Your task to perform on an android device: turn off priority inbox in the gmail app Image 0: 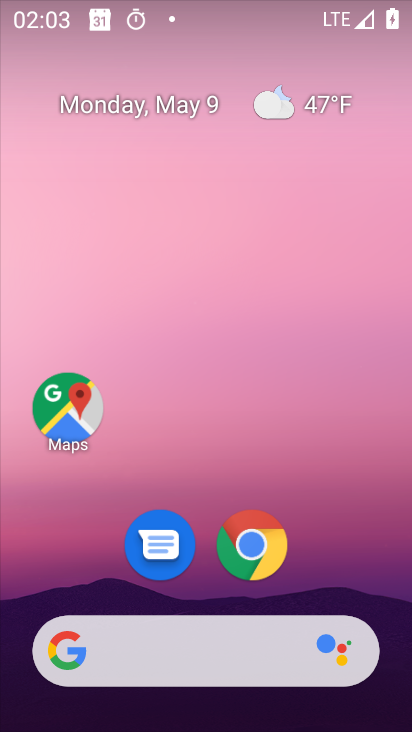
Step 0: drag from (335, 601) to (356, 5)
Your task to perform on an android device: turn off priority inbox in the gmail app Image 1: 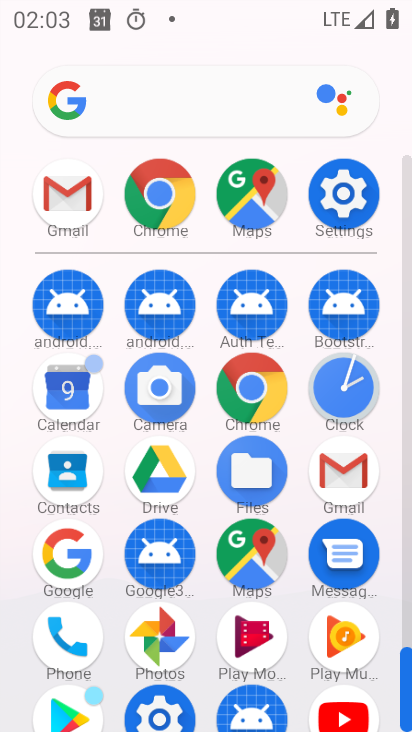
Step 1: click (344, 472)
Your task to perform on an android device: turn off priority inbox in the gmail app Image 2: 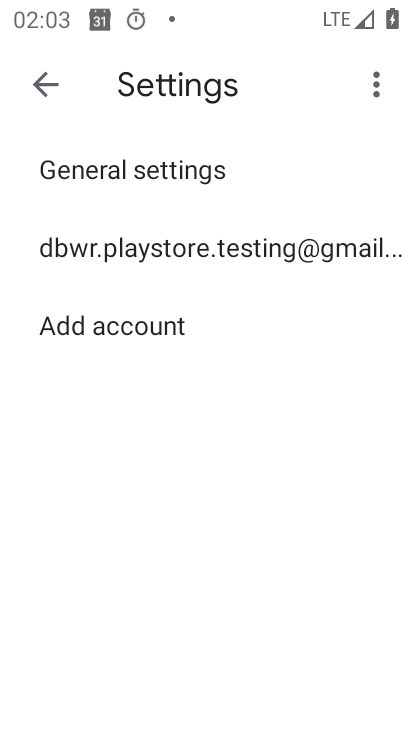
Step 2: press back button
Your task to perform on an android device: turn off priority inbox in the gmail app Image 3: 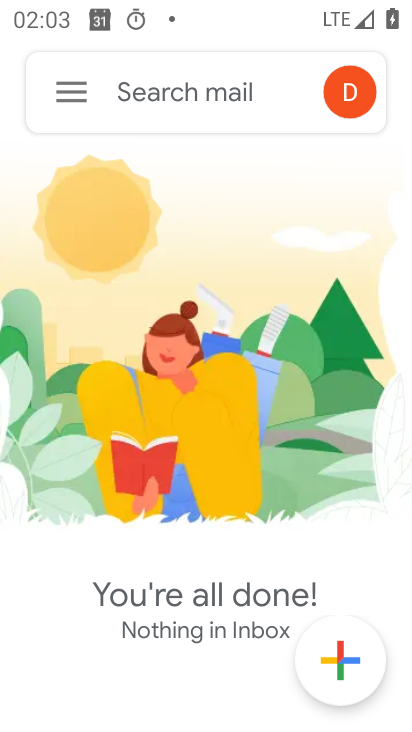
Step 3: click (64, 77)
Your task to perform on an android device: turn off priority inbox in the gmail app Image 4: 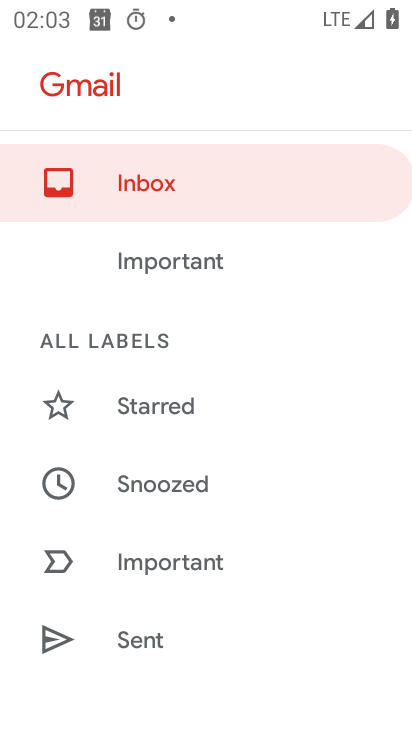
Step 4: drag from (167, 653) to (270, 0)
Your task to perform on an android device: turn off priority inbox in the gmail app Image 5: 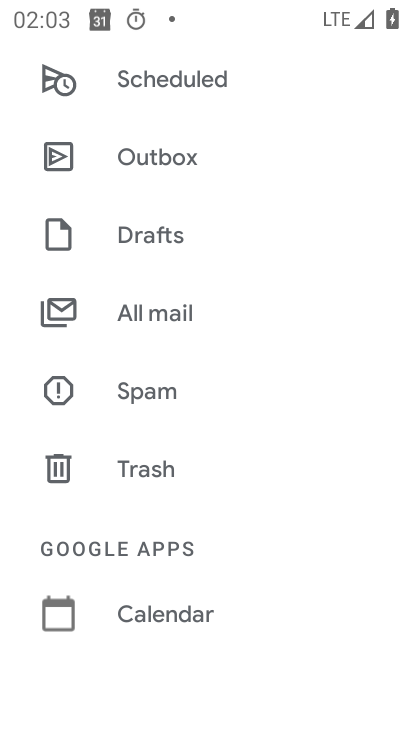
Step 5: drag from (178, 643) to (236, 166)
Your task to perform on an android device: turn off priority inbox in the gmail app Image 6: 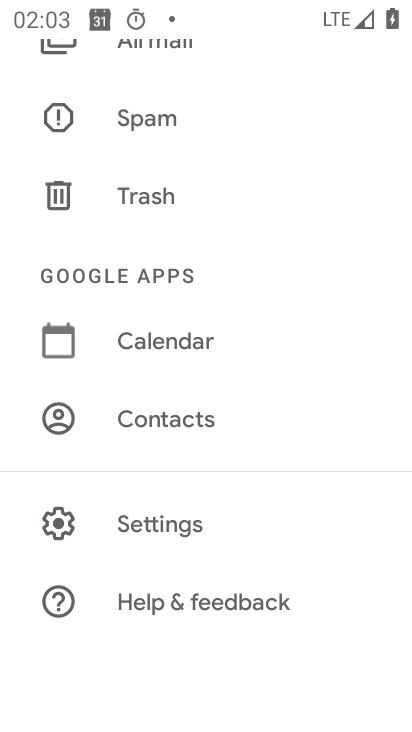
Step 6: click (197, 538)
Your task to perform on an android device: turn off priority inbox in the gmail app Image 7: 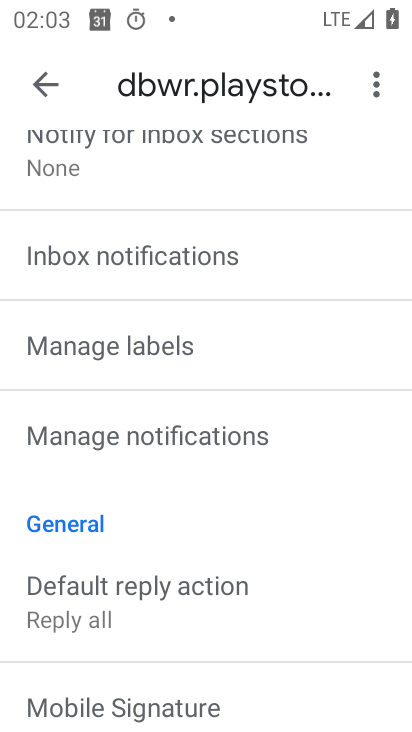
Step 7: drag from (247, 199) to (244, 666)
Your task to perform on an android device: turn off priority inbox in the gmail app Image 8: 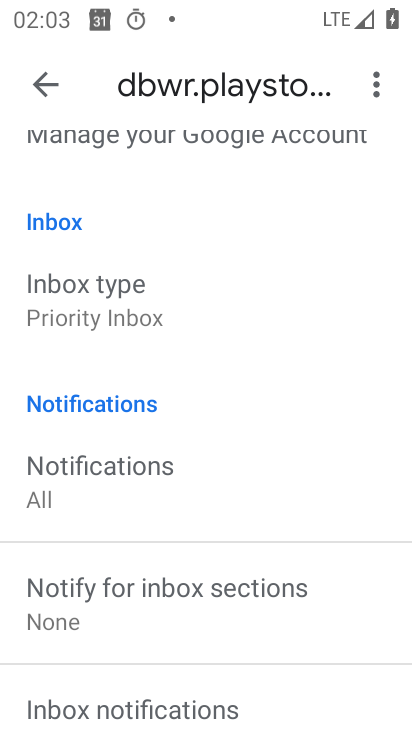
Step 8: drag from (211, 322) to (223, 516)
Your task to perform on an android device: turn off priority inbox in the gmail app Image 9: 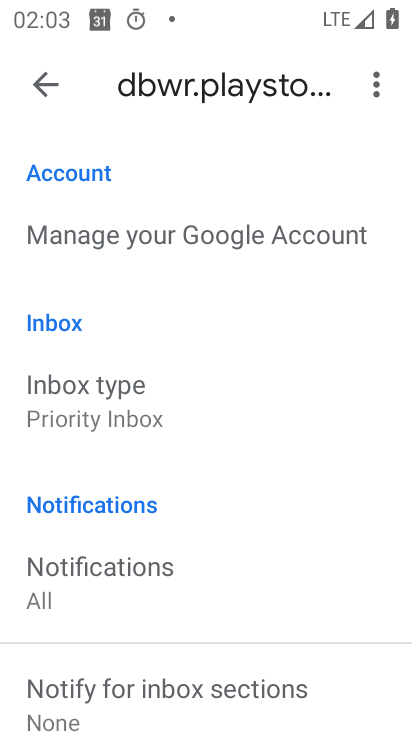
Step 9: click (123, 410)
Your task to perform on an android device: turn off priority inbox in the gmail app Image 10: 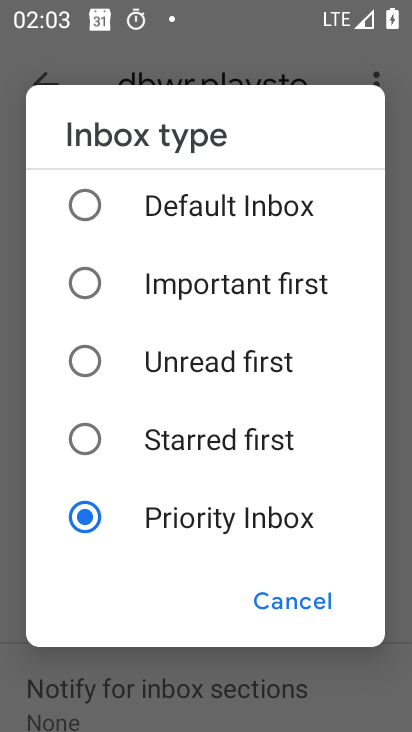
Step 10: click (121, 367)
Your task to perform on an android device: turn off priority inbox in the gmail app Image 11: 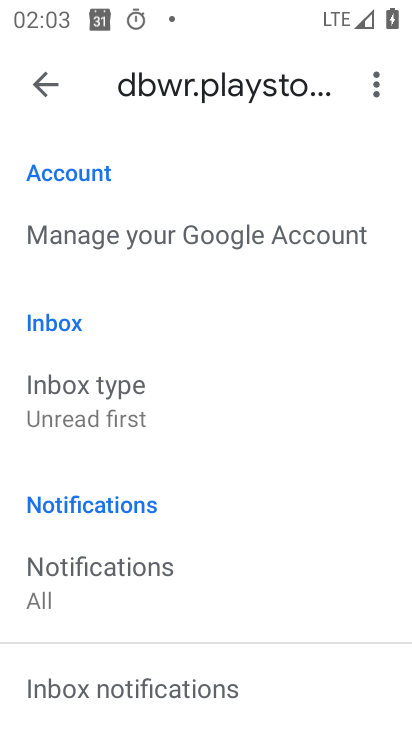
Step 11: task complete